Your task to perform on an android device: Check the news Image 0: 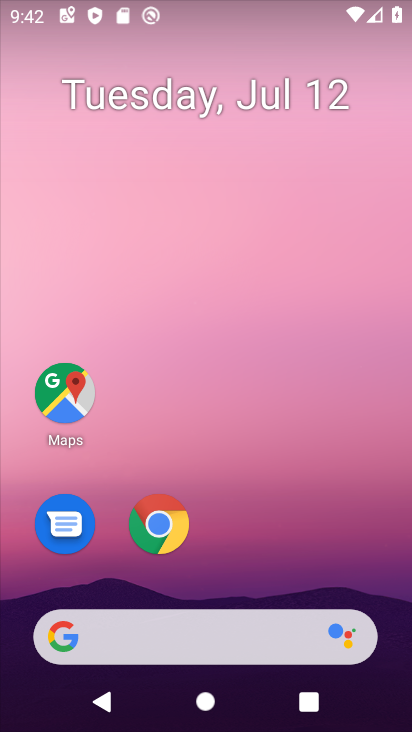
Step 0: drag from (283, 537) to (310, 67)
Your task to perform on an android device: Check the news Image 1: 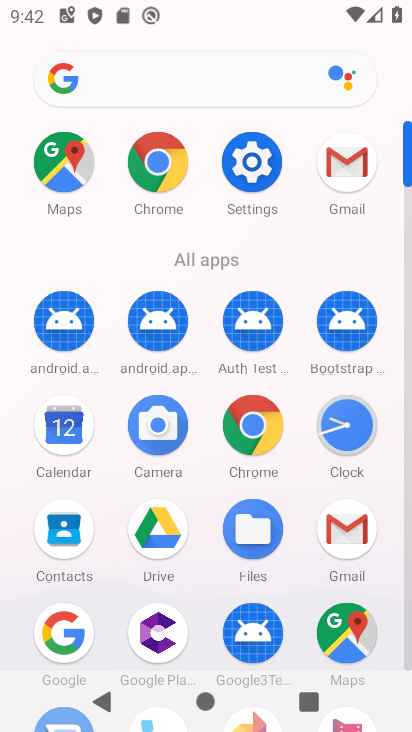
Step 1: click (207, 72)
Your task to perform on an android device: Check the news Image 2: 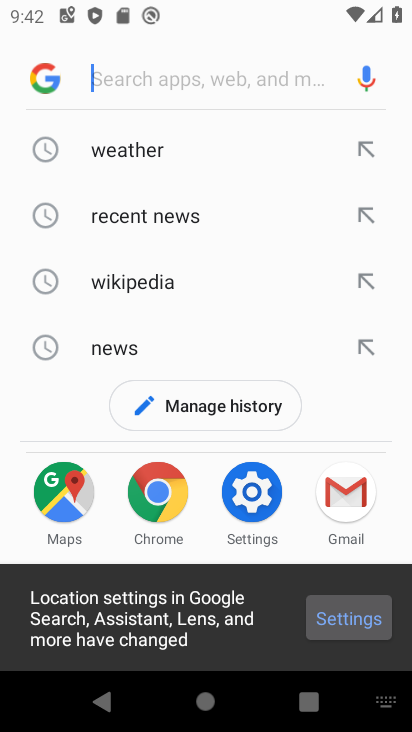
Step 2: click (118, 346)
Your task to perform on an android device: Check the news Image 3: 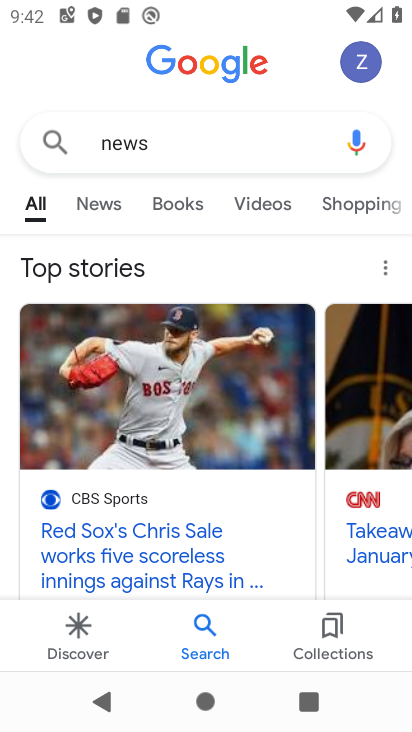
Step 3: task complete